Your task to perform on an android device: What's the weather today? Image 0: 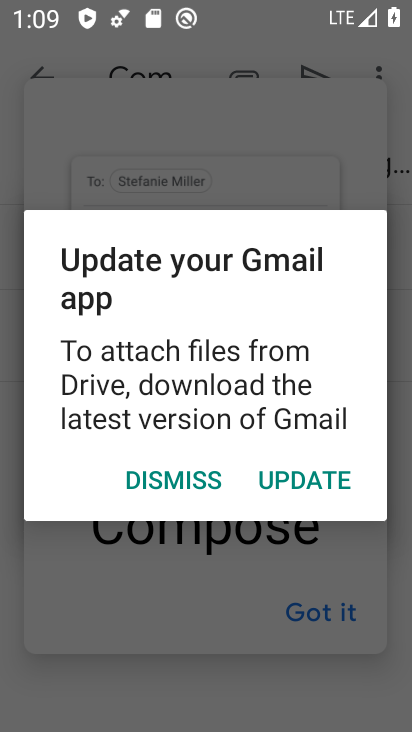
Step 0: press home button
Your task to perform on an android device: What's the weather today? Image 1: 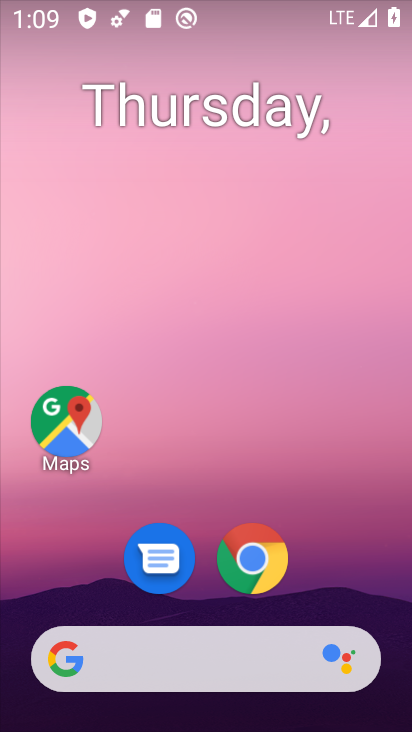
Step 1: click (267, 549)
Your task to perform on an android device: What's the weather today? Image 2: 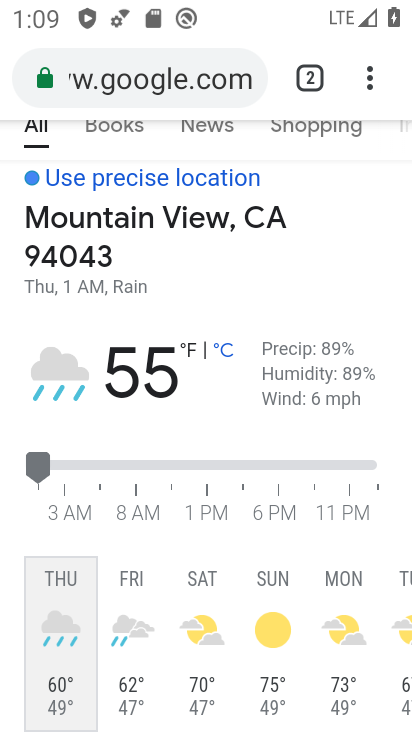
Step 2: click (183, 70)
Your task to perform on an android device: What's the weather today? Image 3: 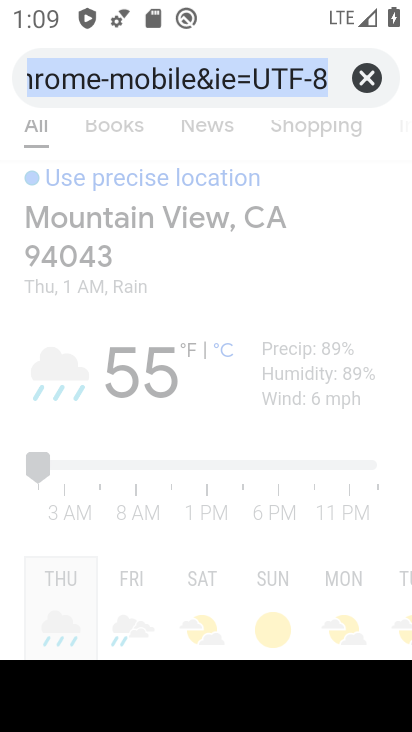
Step 3: click (367, 78)
Your task to perform on an android device: What's the weather today? Image 4: 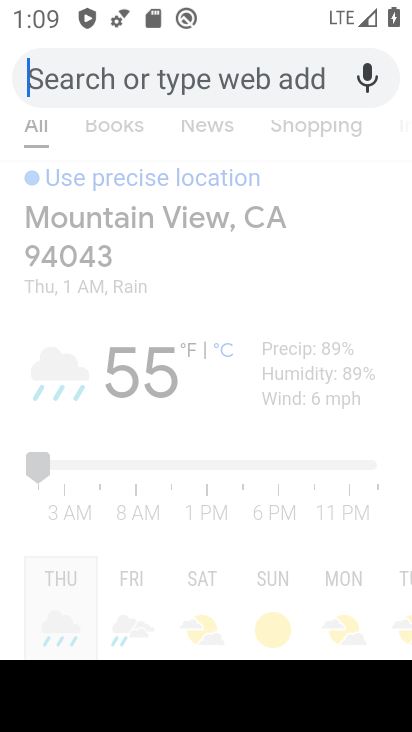
Step 4: type "What's the weather today?"
Your task to perform on an android device: What's the weather today? Image 5: 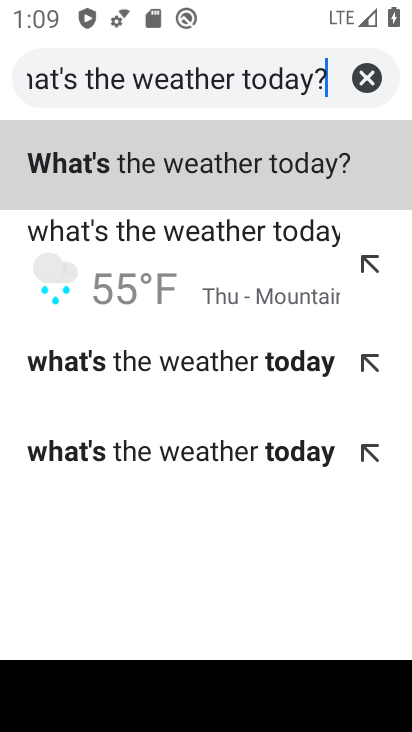
Step 5: click (80, 172)
Your task to perform on an android device: What's the weather today? Image 6: 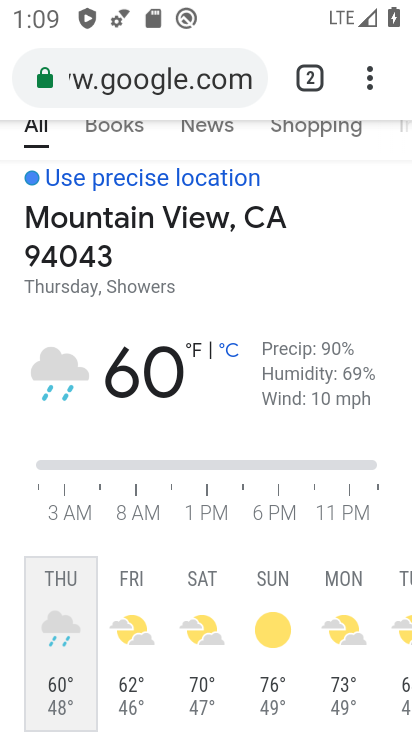
Step 6: task complete